Your task to perform on an android device: Show me the alarms in the clock app Image 0: 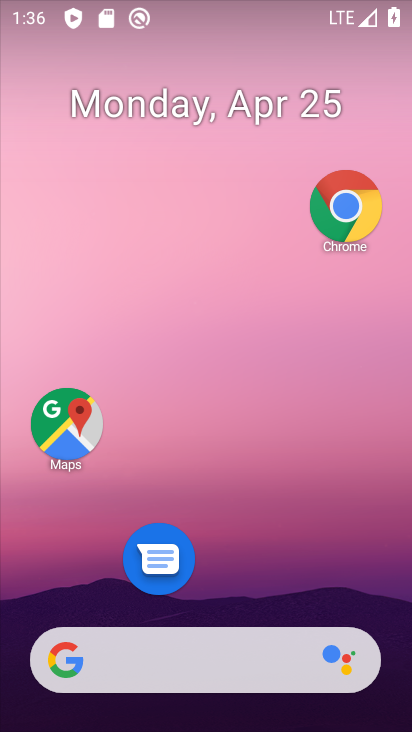
Step 0: drag from (254, 533) to (293, 94)
Your task to perform on an android device: Show me the alarms in the clock app Image 1: 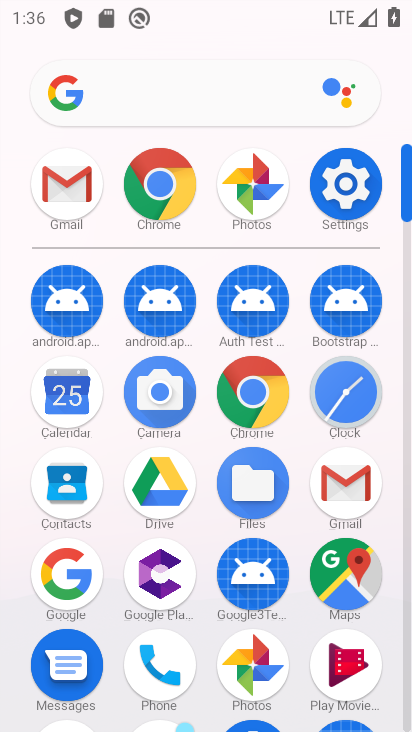
Step 1: click (342, 393)
Your task to perform on an android device: Show me the alarms in the clock app Image 2: 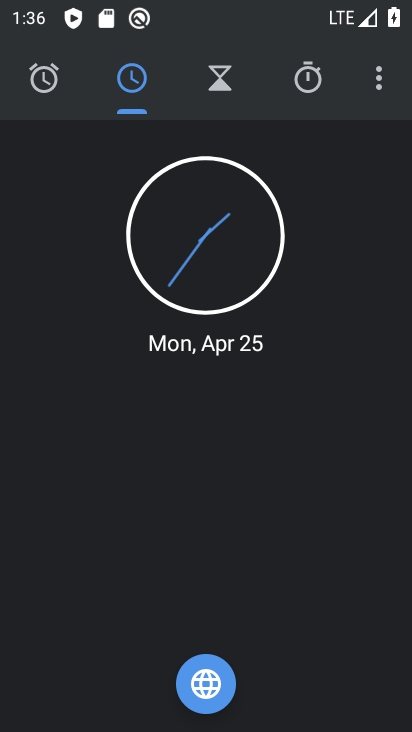
Step 2: click (375, 80)
Your task to perform on an android device: Show me the alarms in the clock app Image 3: 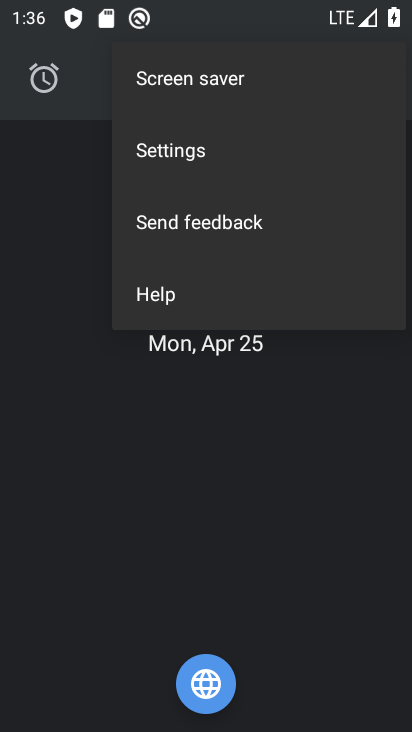
Step 3: click (226, 141)
Your task to perform on an android device: Show me the alarms in the clock app Image 4: 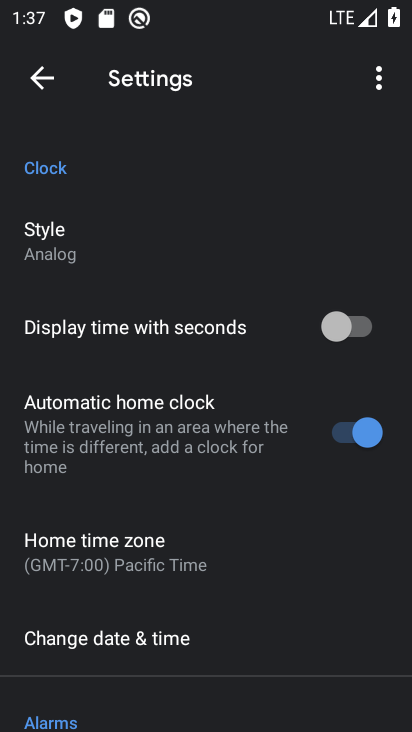
Step 4: click (46, 64)
Your task to perform on an android device: Show me the alarms in the clock app Image 5: 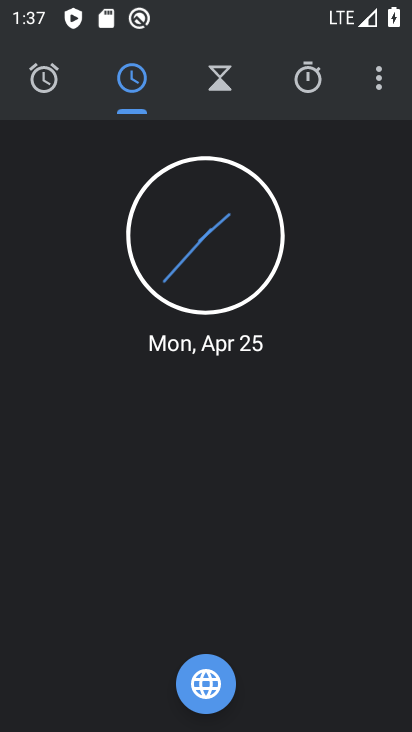
Step 5: click (48, 83)
Your task to perform on an android device: Show me the alarms in the clock app Image 6: 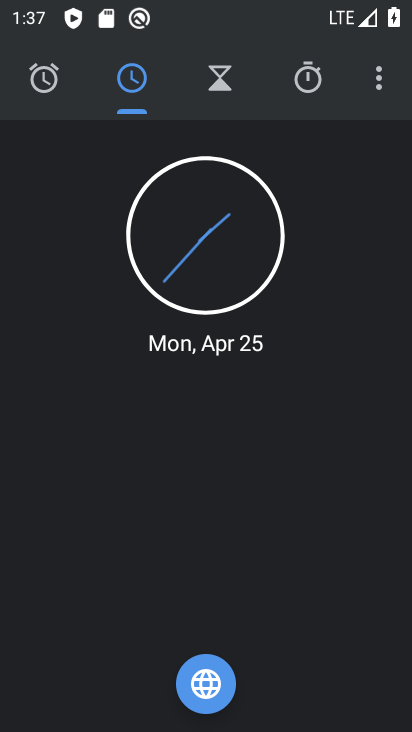
Step 6: click (41, 63)
Your task to perform on an android device: Show me the alarms in the clock app Image 7: 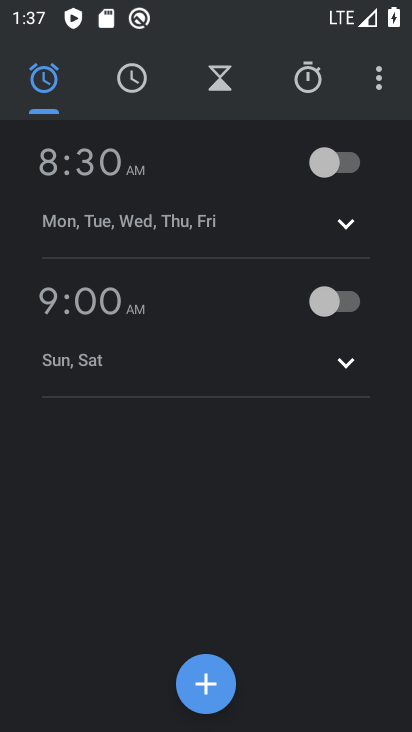
Step 7: task complete